Your task to perform on an android device: open chrome privacy settings Image 0: 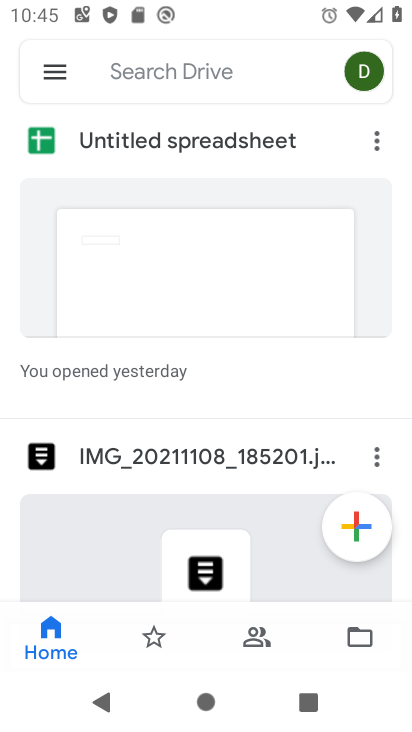
Step 0: press home button
Your task to perform on an android device: open chrome privacy settings Image 1: 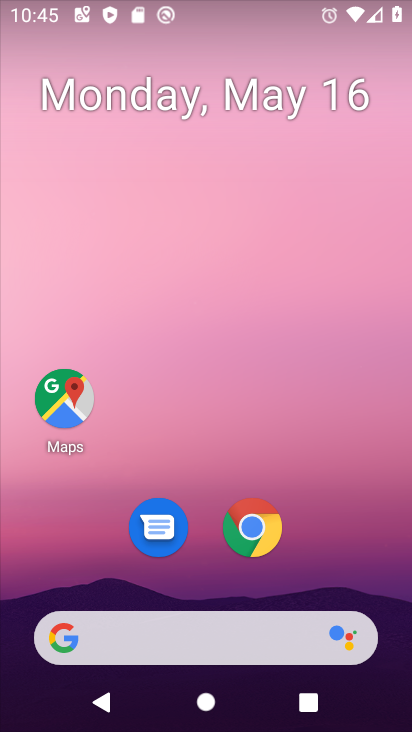
Step 1: click (253, 537)
Your task to perform on an android device: open chrome privacy settings Image 2: 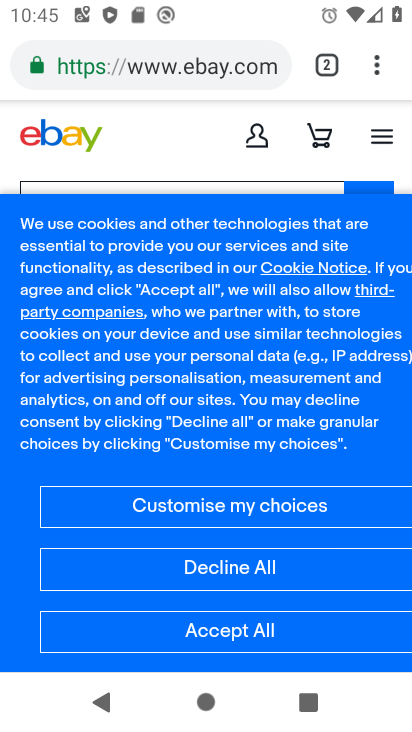
Step 2: click (375, 71)
Your task to perform on an android device: open chrome privacy settings Image 3: 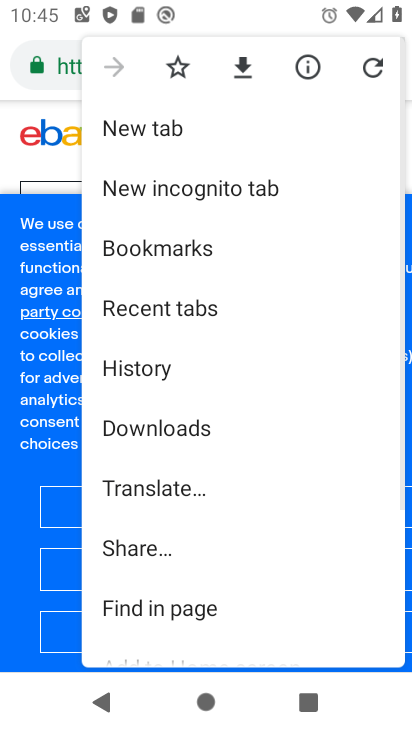
Step 3: drag from (252, 529) to (218, 258)
Your task to perform on an android device: open chrome privacy settings Image 4: 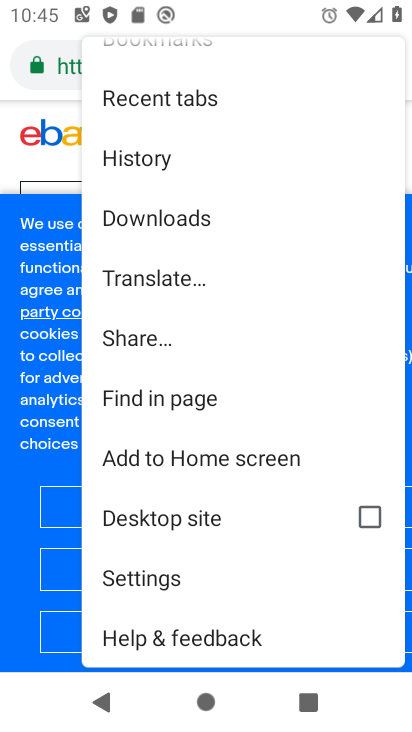
Step 4: click (159, 578)
Your task to perform on an android device: open chrome privacy settings Image 5: 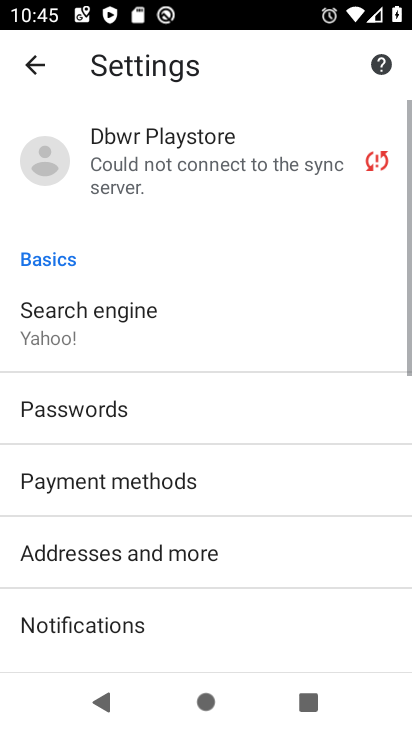
Step 5: drag from (159, 565) to (146, 253)
Your task to perform on an android device: open chrome privacy settings Image 6: 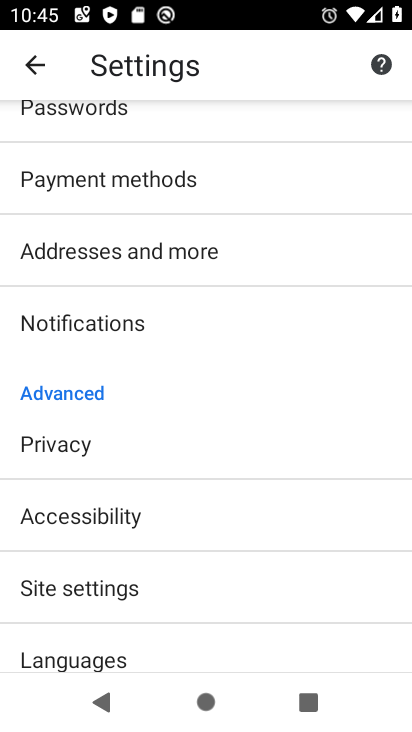
Step 6: click (69, 440)
Your task to perform on an android device: open chrome privacy settings Image 7: 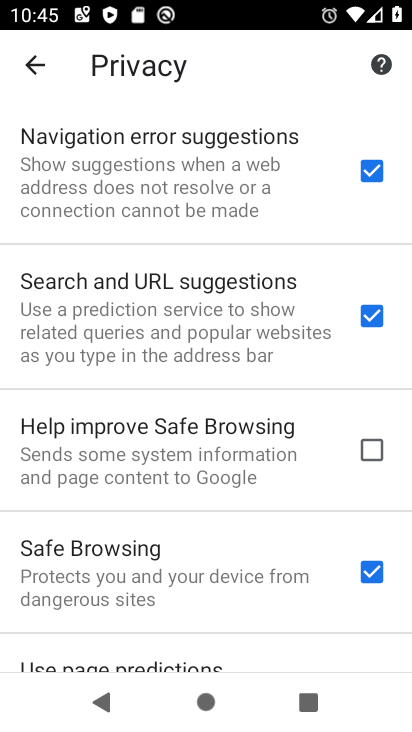
Step 7: task complete